Your task to perform on an android device: Go to internet settings Image 0: 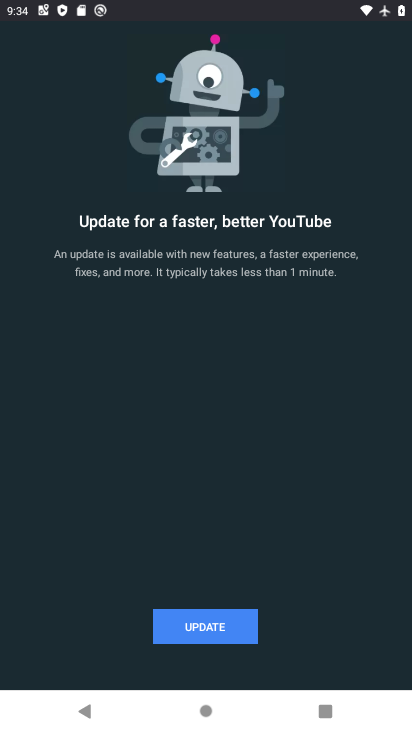
Step 0: press home button
Your task to perform on an android device: Go to internet settings Image 1: 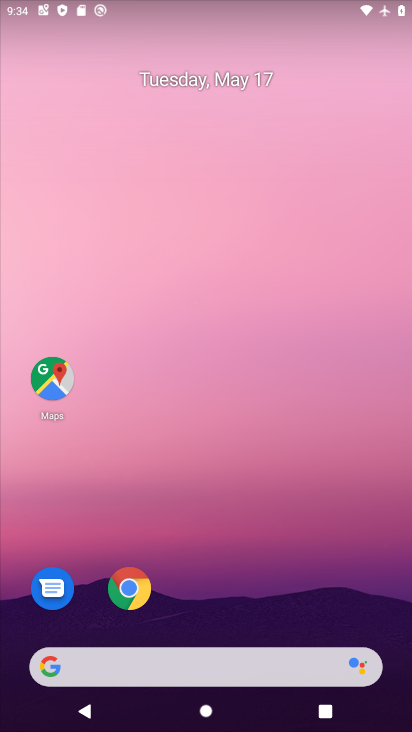
Step 1: drag from (208, 636) to (248, 1)
Your task to perform on an android device: Go to internet settings Image 2: 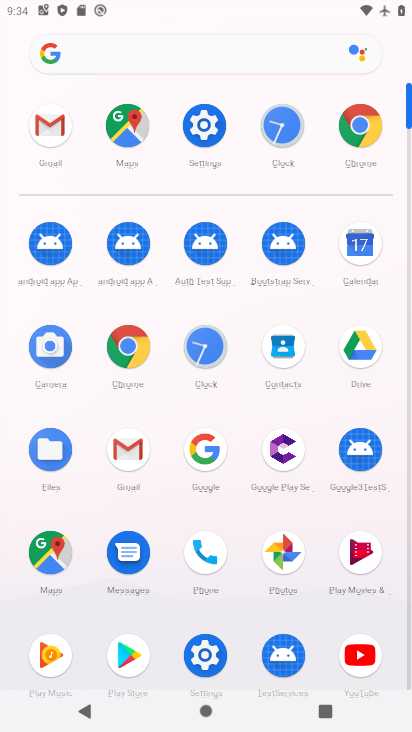
Step 2: click (208, 130)
Your task to perform on an android device: Go to internet settings Image 3: 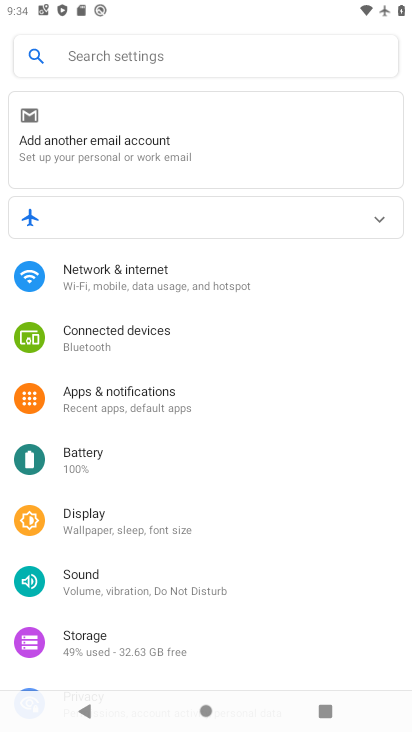
Step 3: click (142, 286)
Your task to perform on an android device: Go to internet settings Image 4: 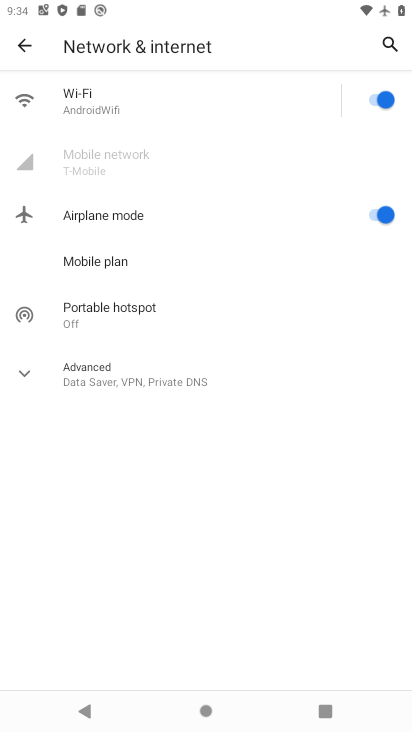
Step 4: click (149, 152)
Your task to perform on an android device: Go to internet settings Image 5: 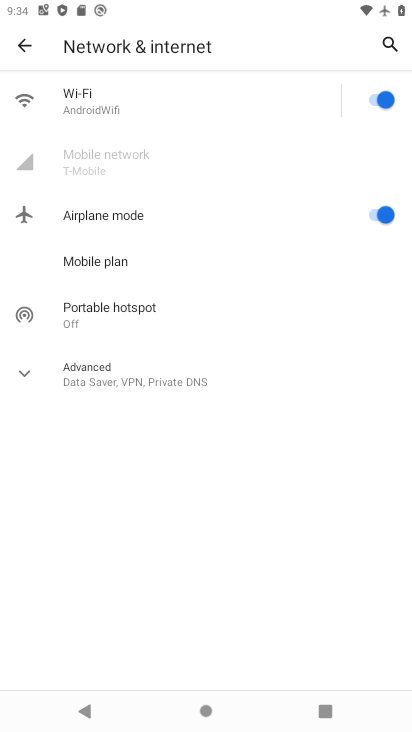
Step 5: click (152, 367)
Your task to perform on an android device: Go to internet settings Image 6: 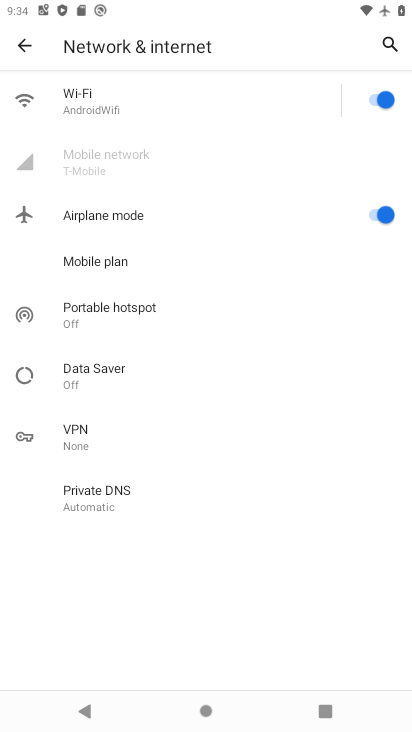
Step 6: task complete